Your task to perform on an android device: What's the latest video from Game Informer? Image 0: 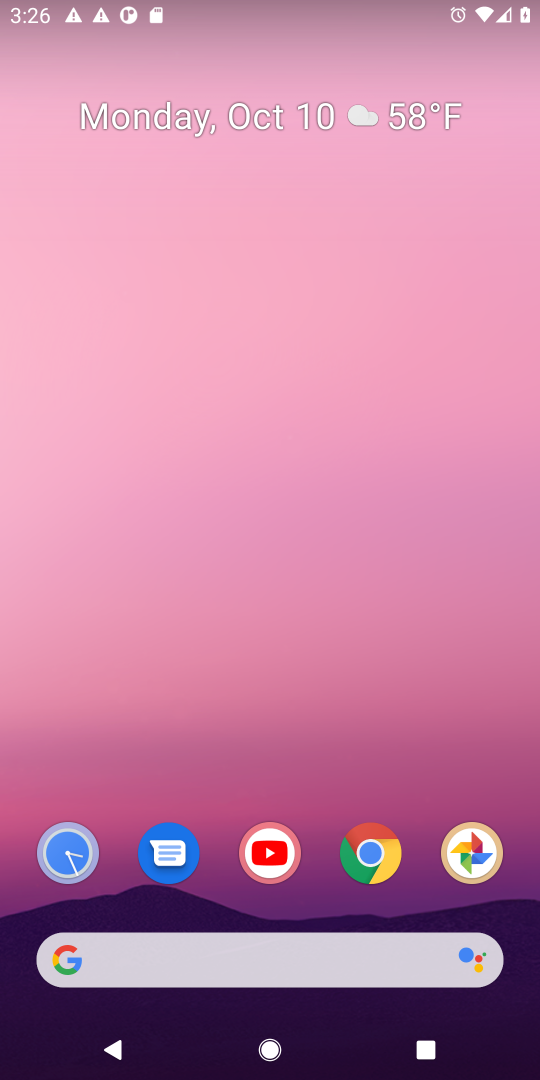
Step 0: drag from (307, 822) to (325, 2)
Your task to perform on an android device: What's the latest video from Game Informer? Image 1: 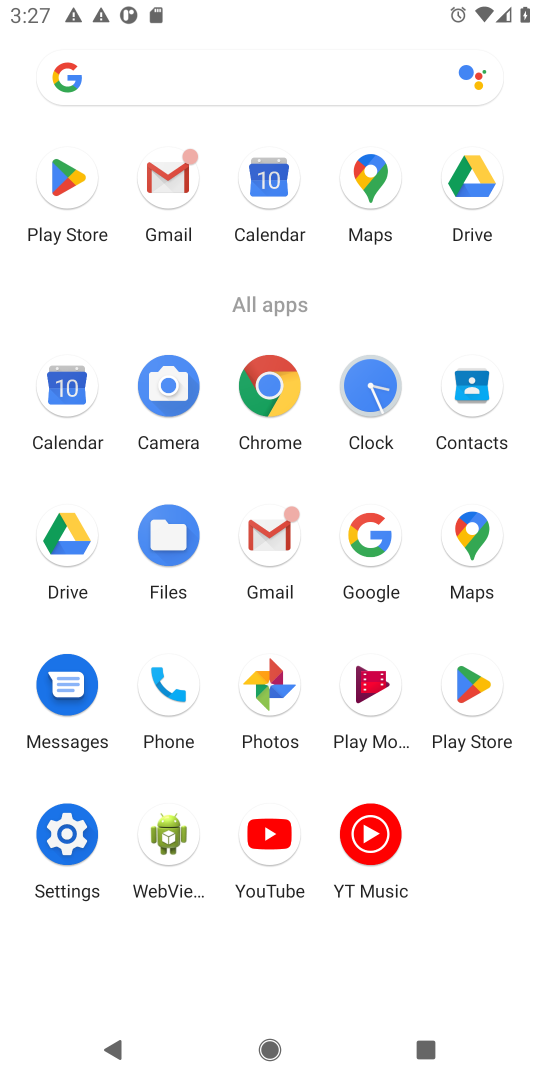
Step 1: click (277, 384)
Your task to perform on an android device: What's the latest video from Game Informer? Image 2: 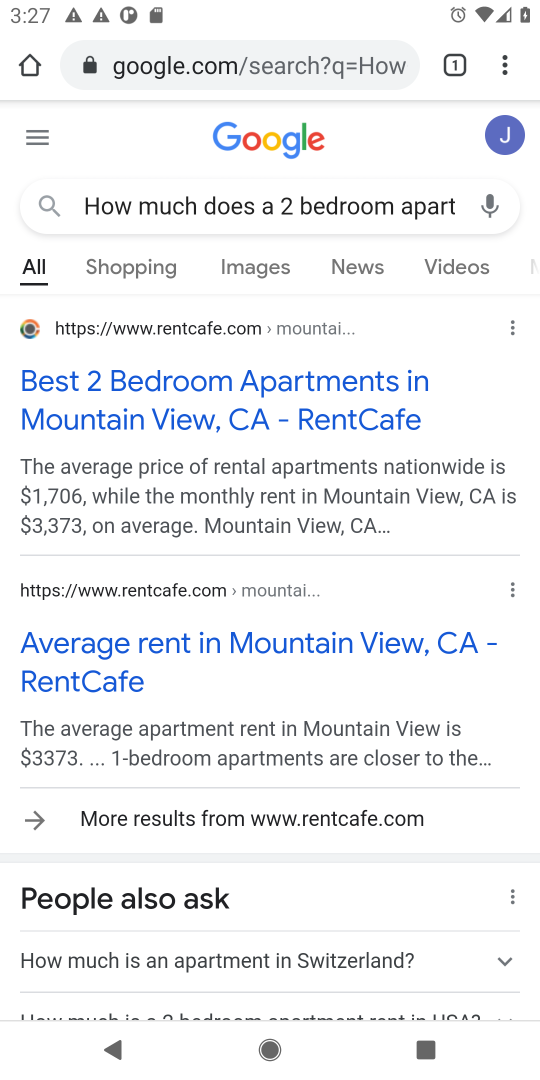
Step 2: click (212, 97)
Your task to perform on an android device: What's the latest video from Game Informer? Image 3: 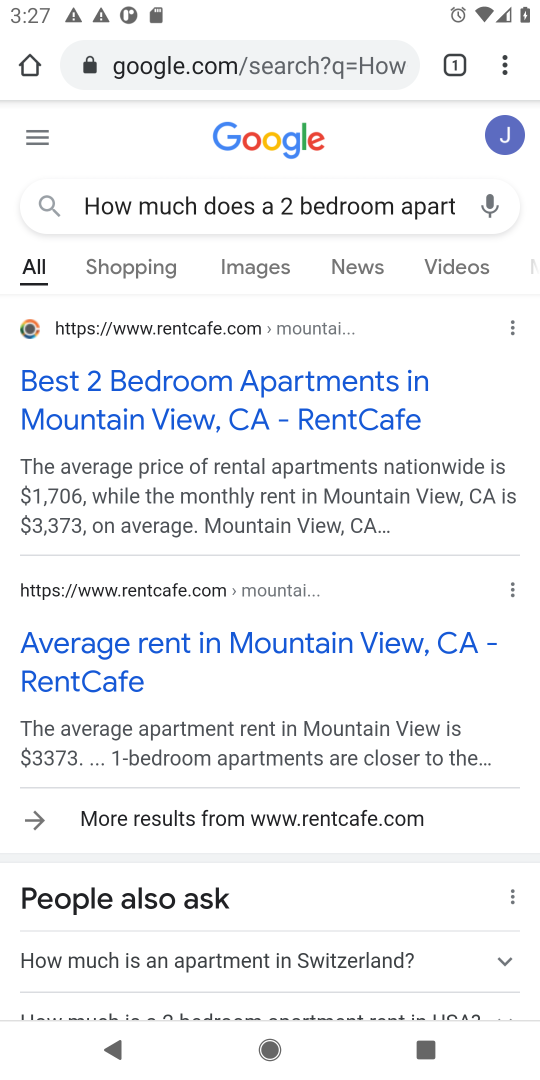
Step 3: click (181, 69)
Your task to perform on an android device: What's the latest video from Game Informer? Image 4: 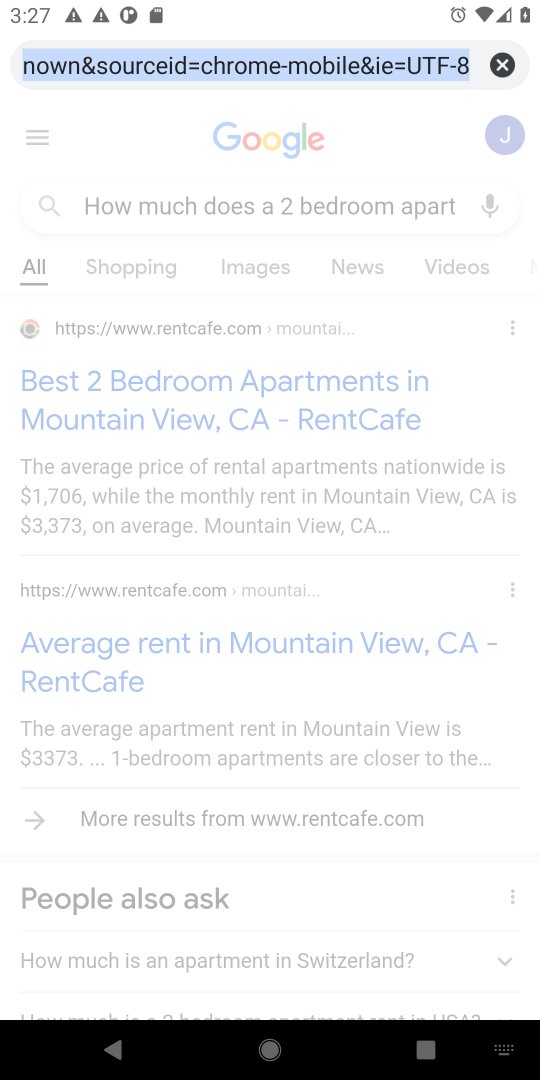
Step 4: click (501, 56)
Your task to perform on an android device: What's the latest video from Game Informer? Image 5: 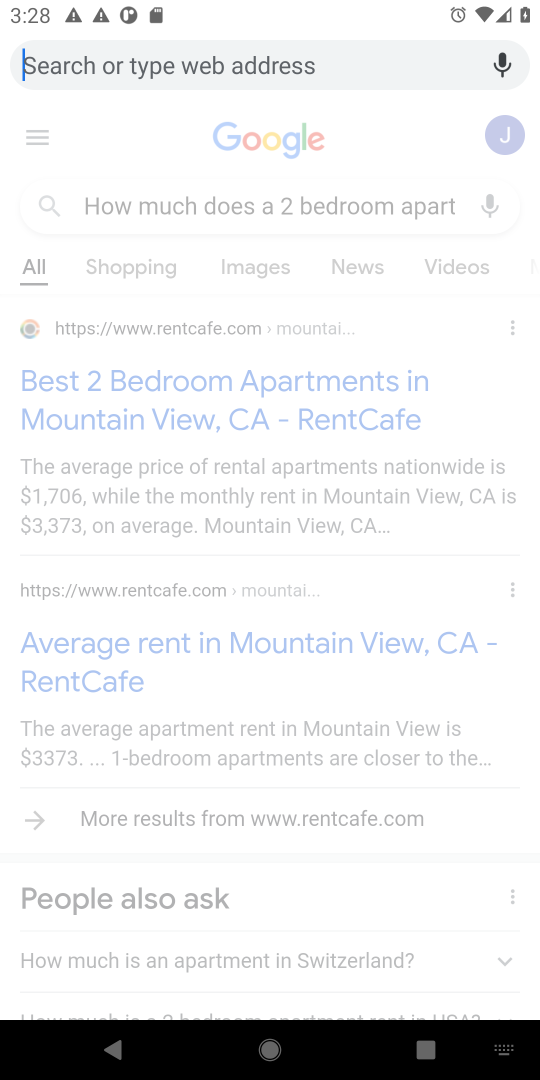
Step 5: type "What's the latest video from Game Informer?"
Your task to perform on an android device: What's the latest video from Game Informer? Image 6: 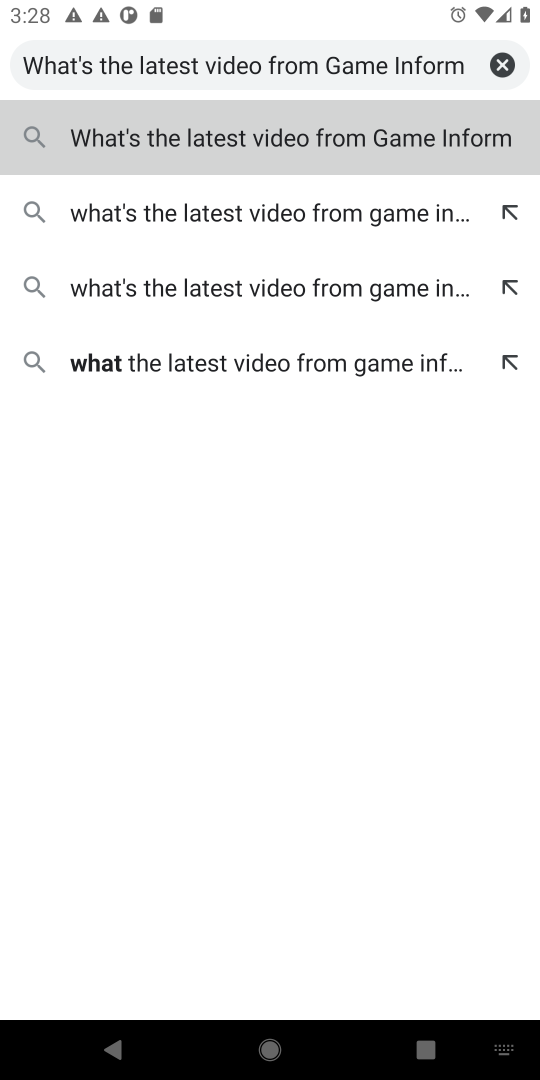
Step 6: click (294, 133)
Your task to perform on an android device: What's the latest video from Game Informer? Image 7: 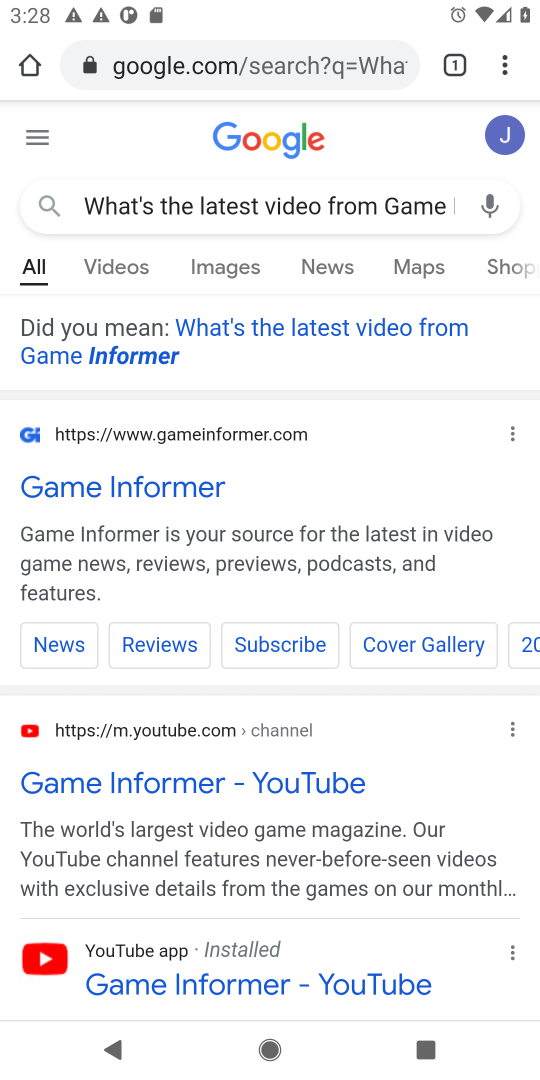
Step 7: task complete